Your task to perform on an android device: all mails in gmail Image 0: 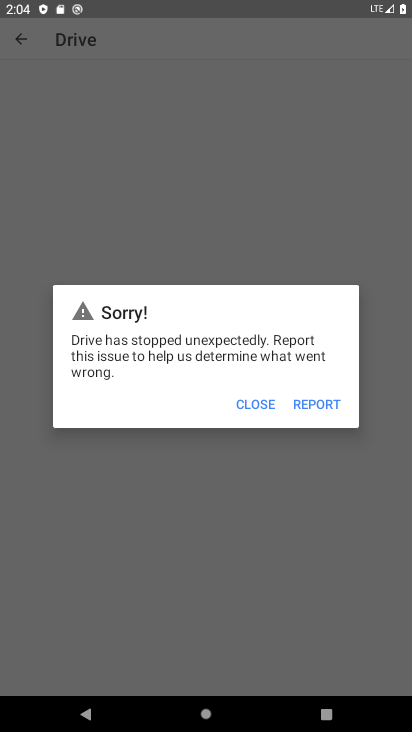
Step 0: press home button
Your task to perform on an android device: all mails in gmail Image 1: 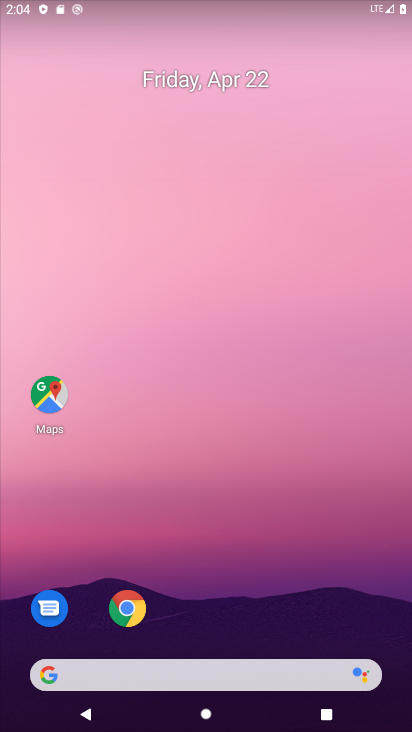
Step 1: drag from (246, 699) to (276, 173)
Your task to perform on an android device: all mails in gmail Image 2: 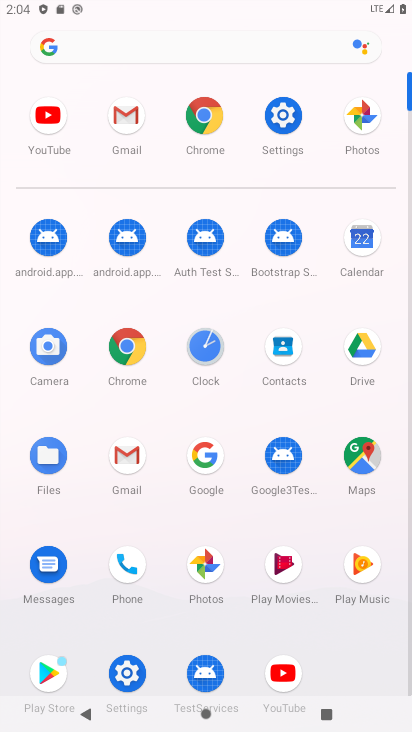
Step 2: click (118, 113)
Your task to perform on an android device: all mails in gmail Image 3: 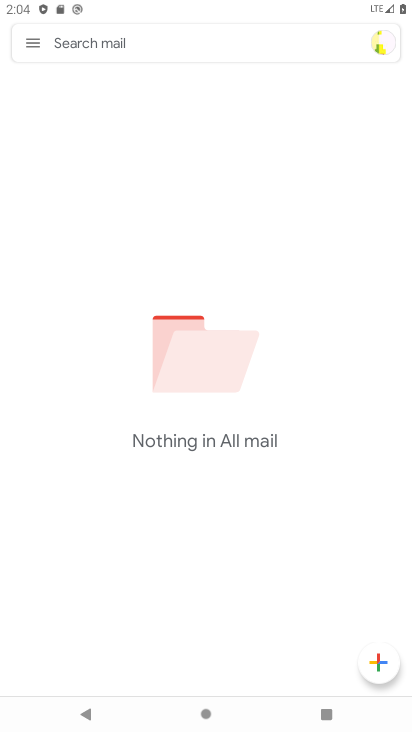
Step 3: click (28, 47)
Your task to perform on an android device: all mails in gmail Image 4: 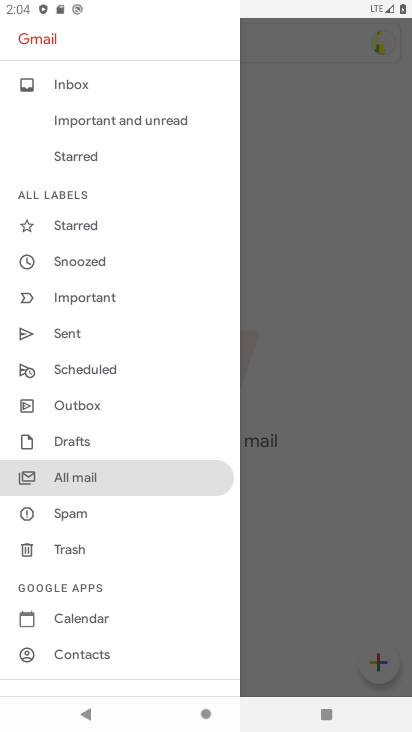
Step 4: click (55, 481)
Your task to perform on an android device: all mails in gmail Image 5: 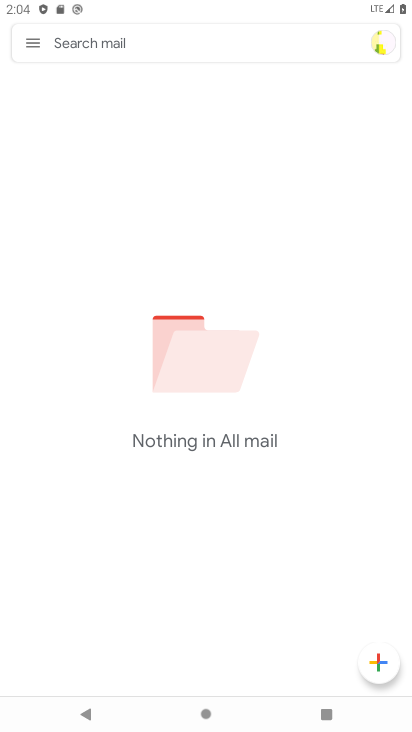
Step 5: task complete